Your task to perform on an android device: Open battery settings Image 0: 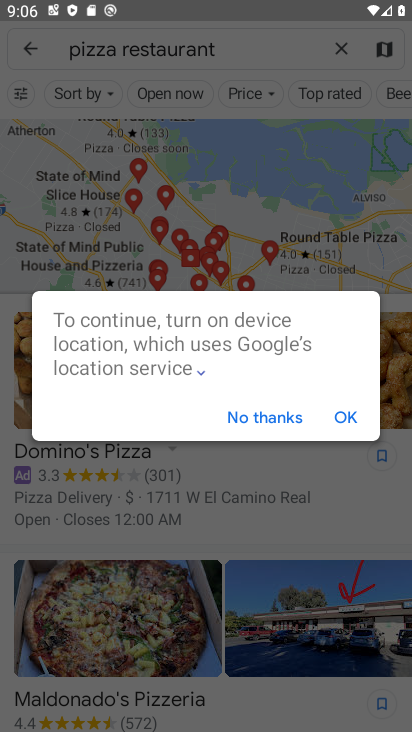
Step 0: press home button
Your task to perform on an android device: Open battery settings Image 1: 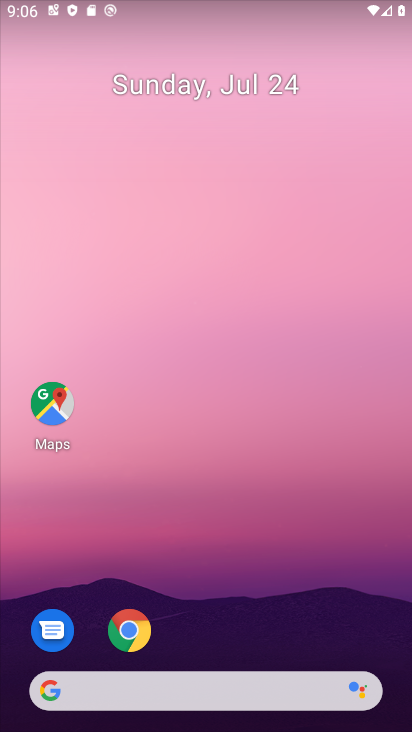
Step 1: drag from (227, 597) to (245, 108)
Your task to perform on an android device: Open battery settings Image 2: 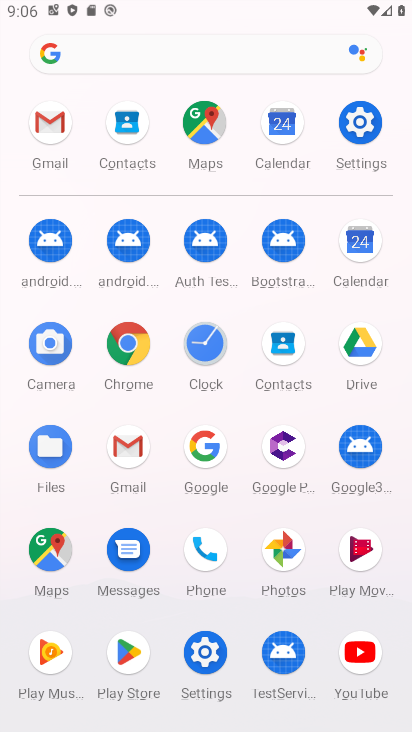
Step 2: click (379, 123)
Your task to perform on an android device: Open battery settings Image 3: 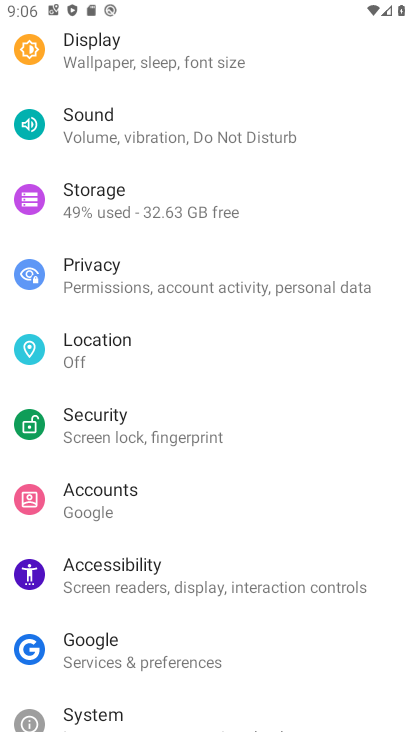
Step 3: drag from (129, 252) to (142, 591)
Your task to perform on an android device: Open battery settings Image 4: 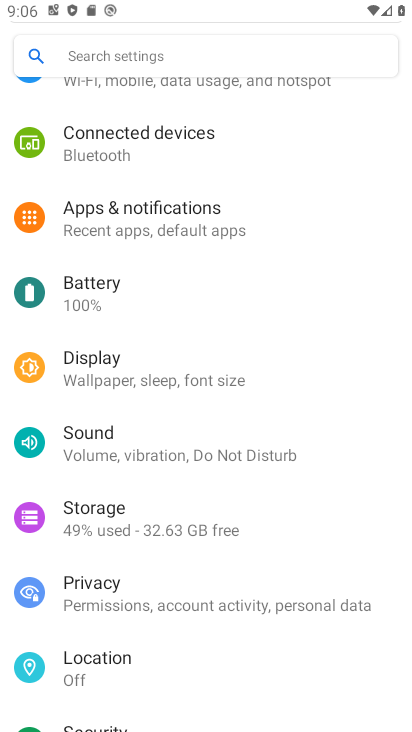
Step 4: click (142, 310)
Your task to perform on an android device: Open battery settings Image 5: 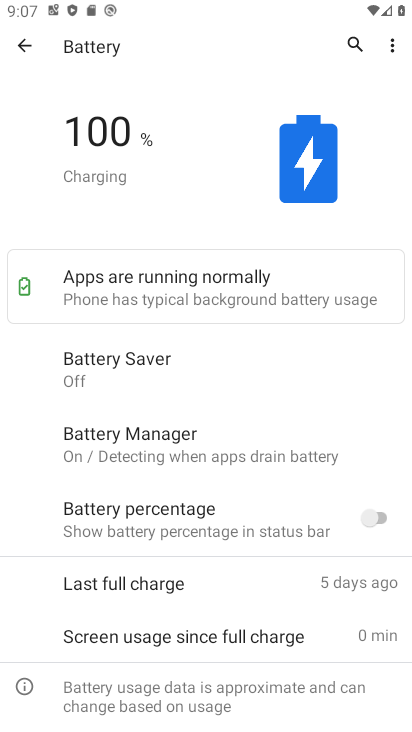
Step 5: task complete